Your task to perform on an android device: Search for the best value 4K TV on Best Buy Image 0: 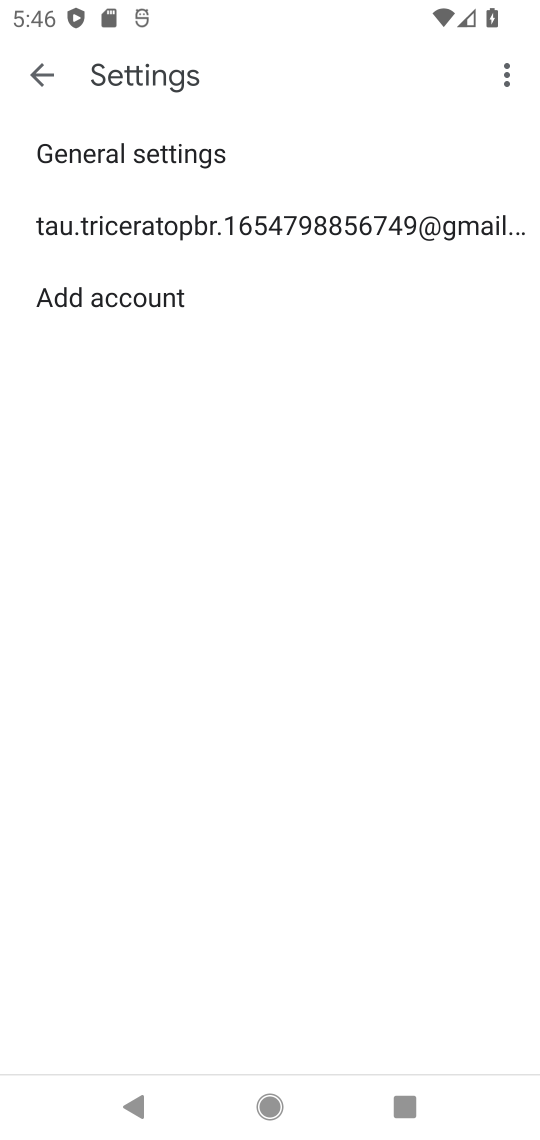
Step 0: press home button
Your task to perform on an android device: Search for the best value 4K TV on Best Buy Image 1: 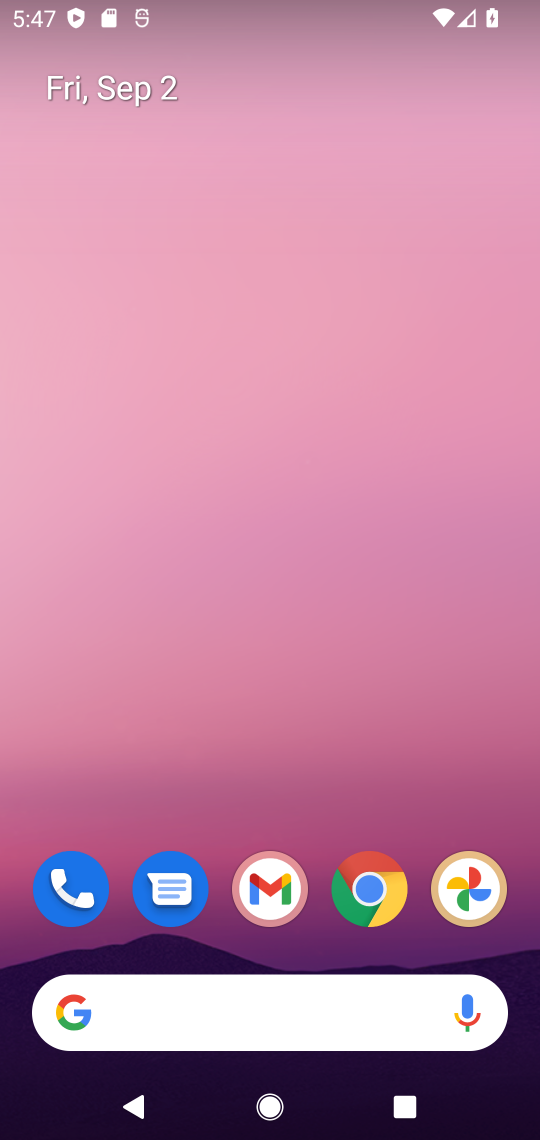
Step 1: click (287, 1022)
Your task to perform on an android device: Search for the best value 4K TV on Best Buy Image 2: 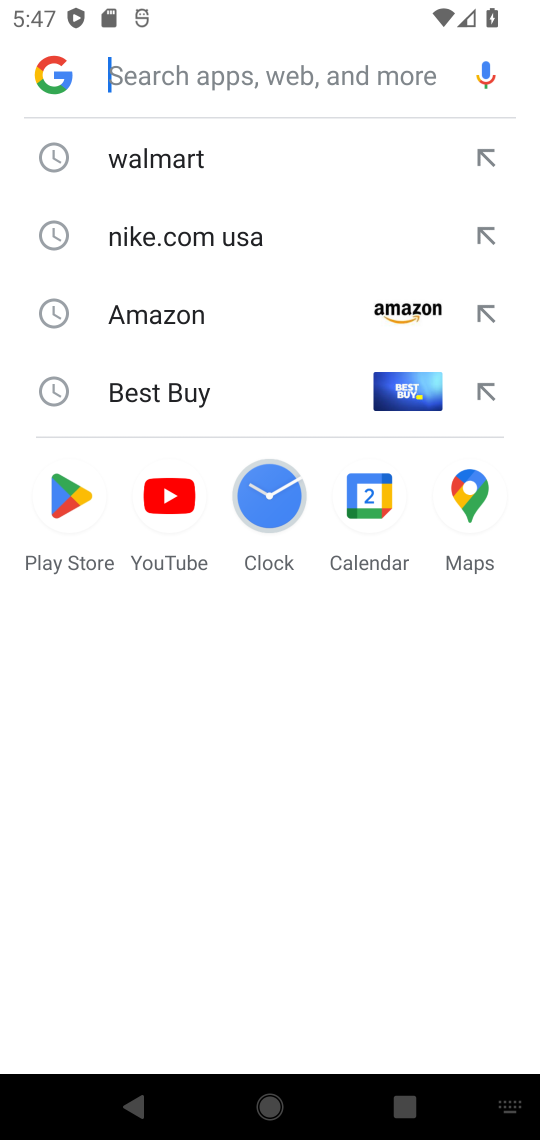
Step 2: click (162, 393)
Your task to perform on an android device: Search for the best value 4K TV on Best Buy Image 3: 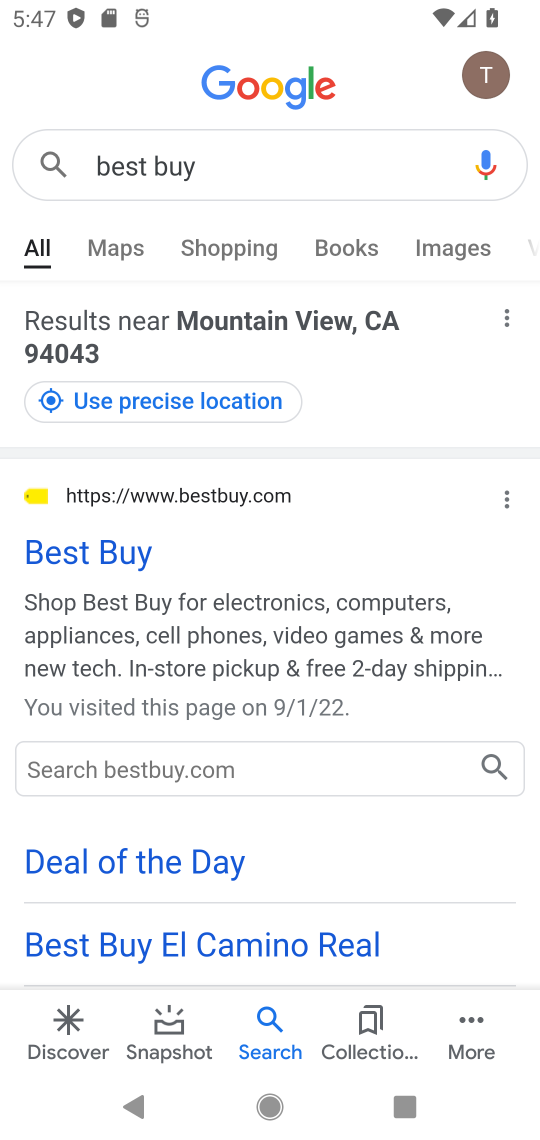
Step 3: click (101, 555)
Your task to perform on an android device: Search for the best value 4K TV on Best Buy Image 4: 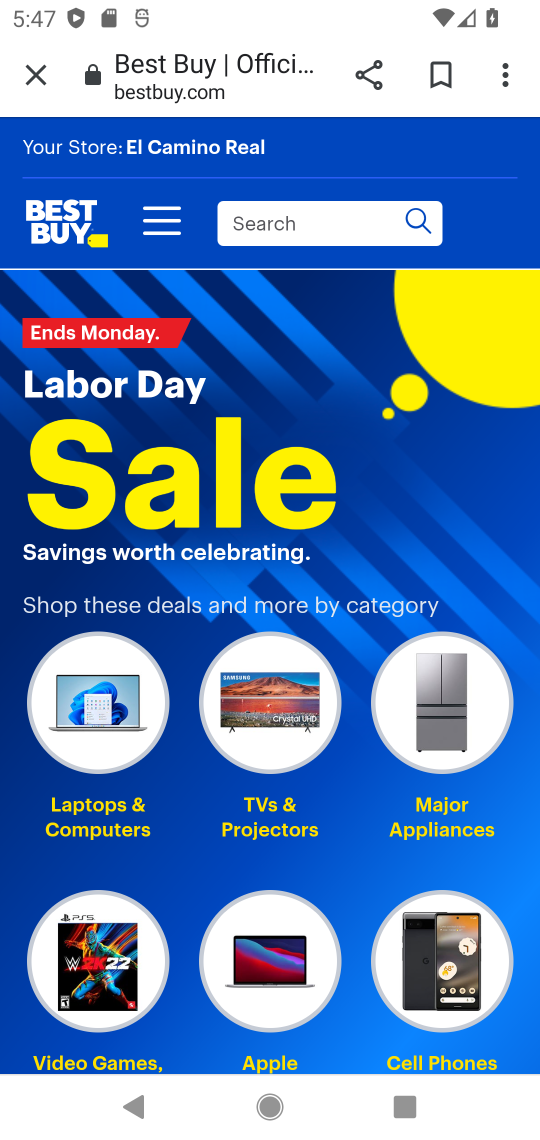
Step 4: click (312, 225)
Your task to perform on an android device: Search for the best value 4K TV on Best Buy Image 5: 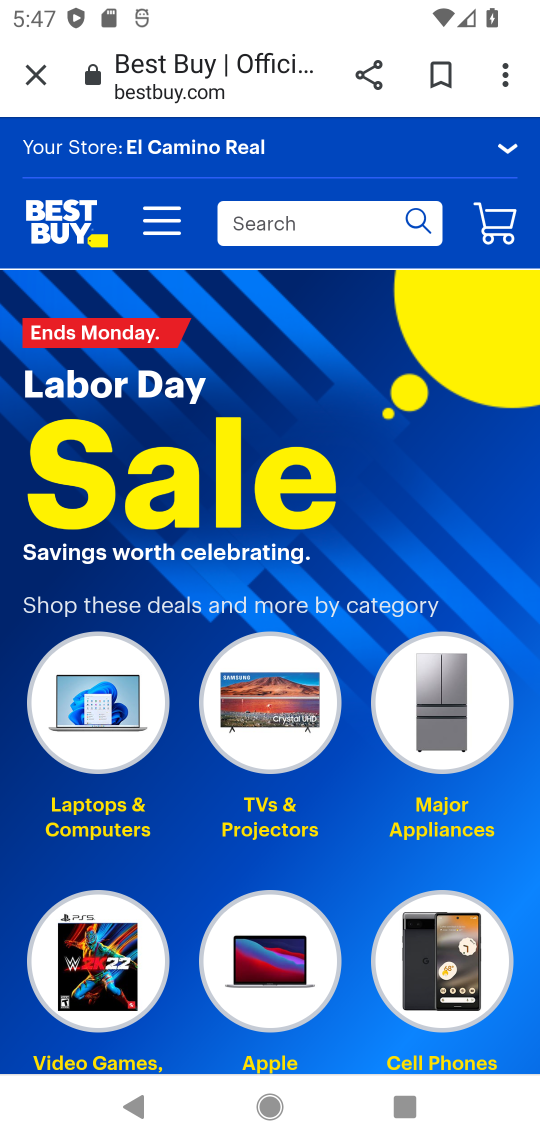
Step 5: type "best value 4K TV"
Your task to perform on an android device: Search for the best value 4K TV on Best Buy Image 6: 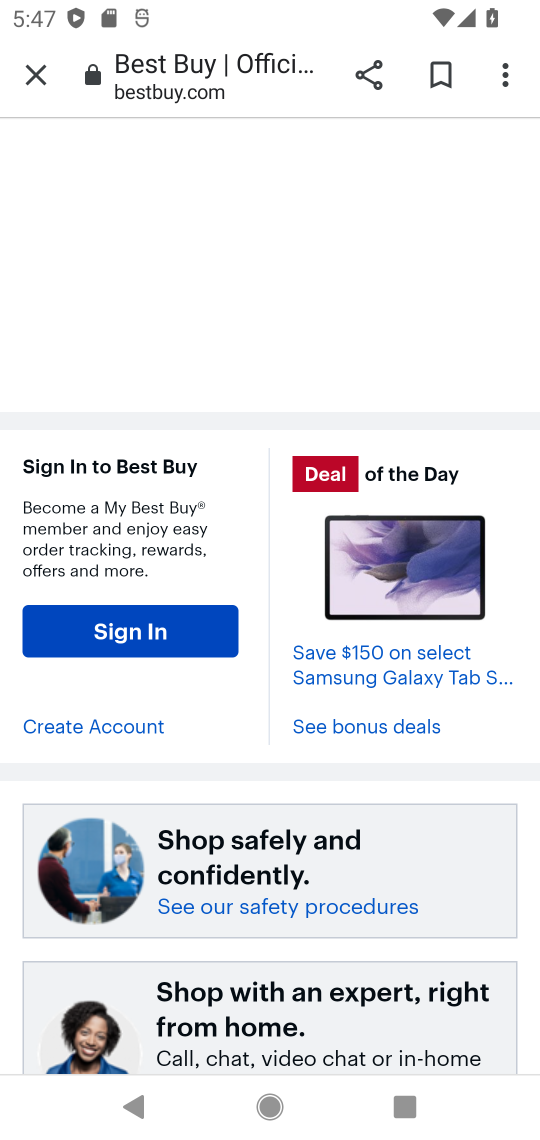
Step 6: task complete